Your task to perform on an android device: Turn on the flashlight Image 0: 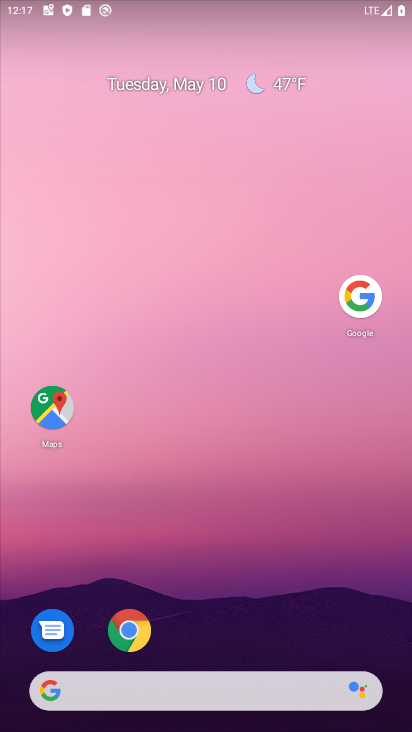
Step 0: press home button
Your task to perform on an android device: Turn on the flashlight Image 1: 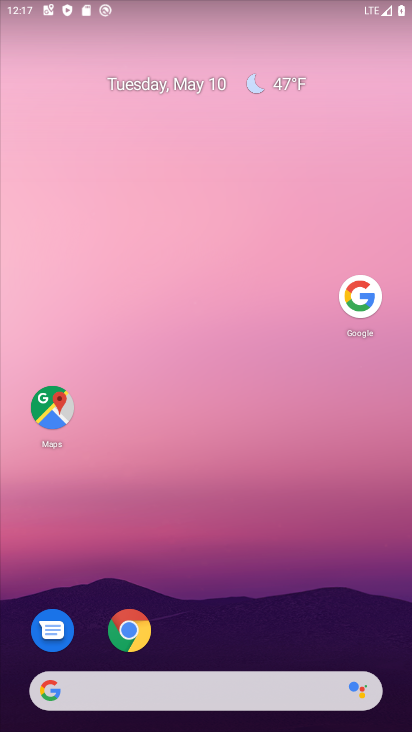
Step 1: task complete